Your task to perform on an android device: change your default location settings in chrome Image 0: 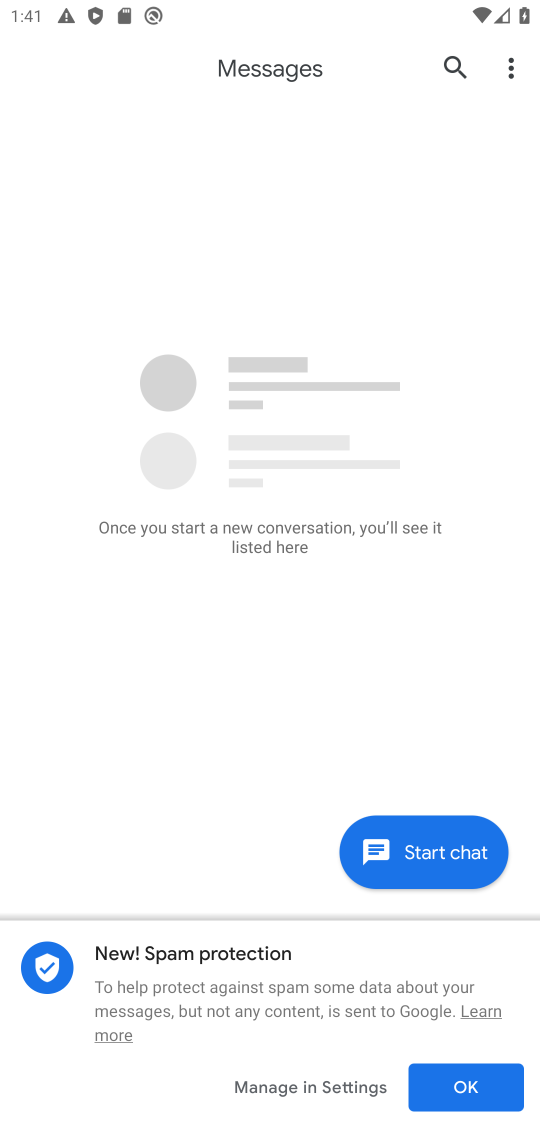
Step 0: press back button
Your task to perform on an android device: change your default location settings in chrome Image 1: 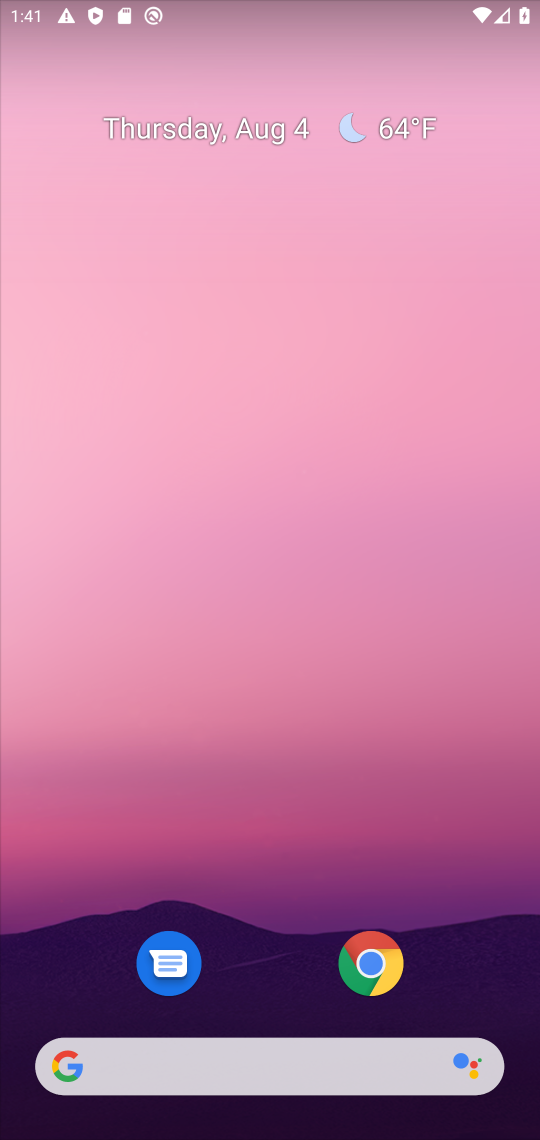
Step 1: click (349, 987)
Your task to perform on an android device: change your default location settings in chrome Image 2: 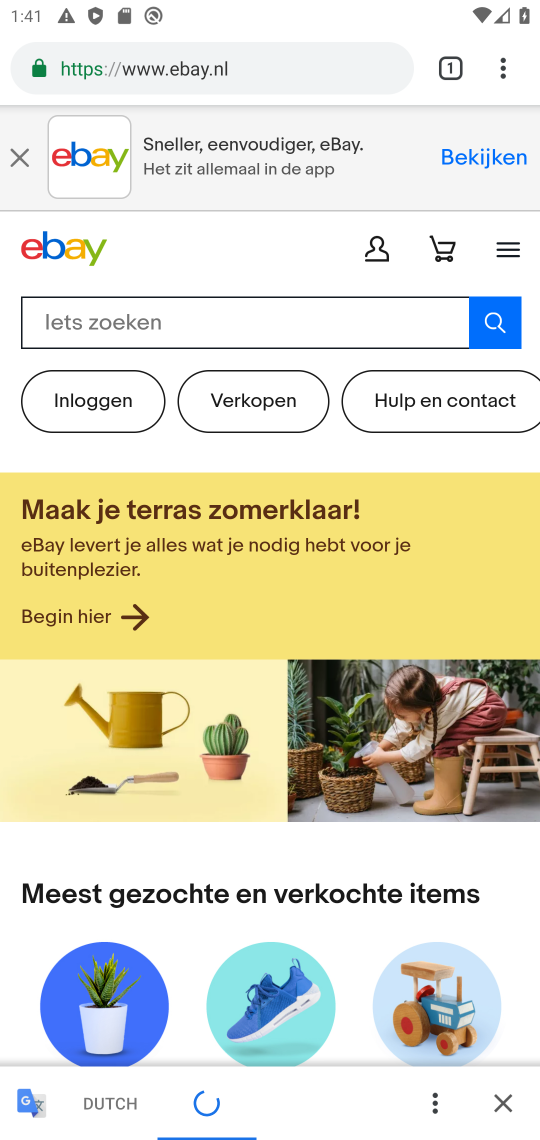
Step 2: drag from (504, 80) to (316, 887)
Your task to perform on an android device: change your default location settings in chrome Image 3: 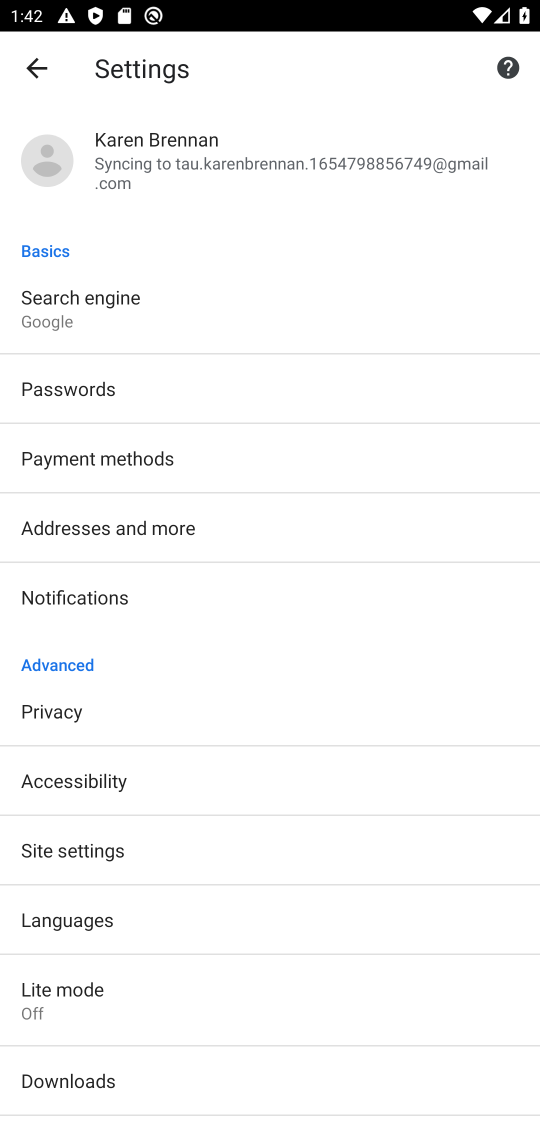
Step 3: click (122, 854)
Your task to perform on an android device: change your default location settings in chrome Image 4: 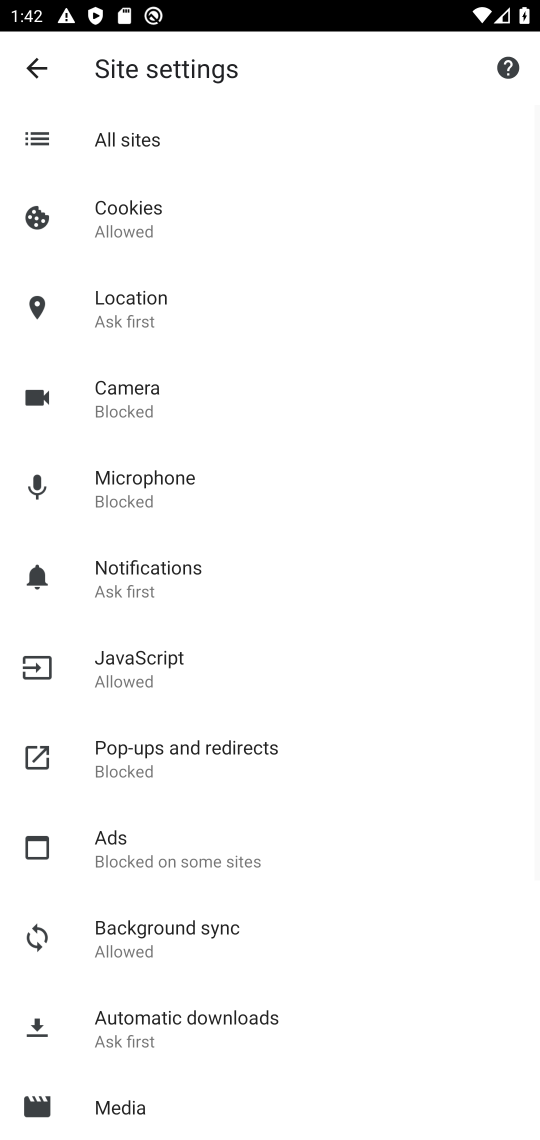
Step 4: click (131, 310)
Your task to perform on an android device: change your default location settings in chrome Image 5: 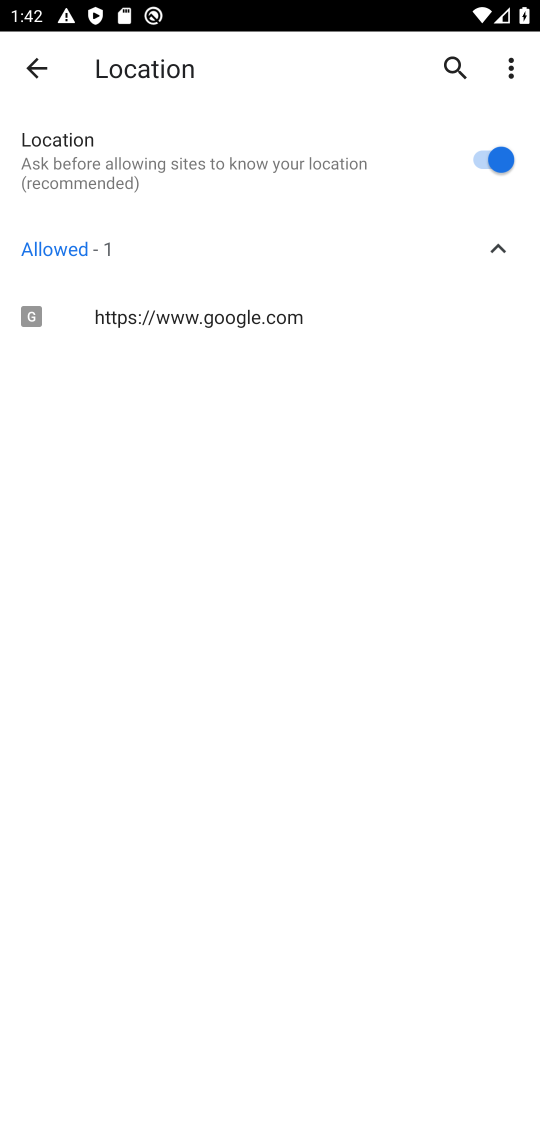
Step 5: click (486, 156)
Your task to perform on an android device: change your default location settings in chrome Image 6: 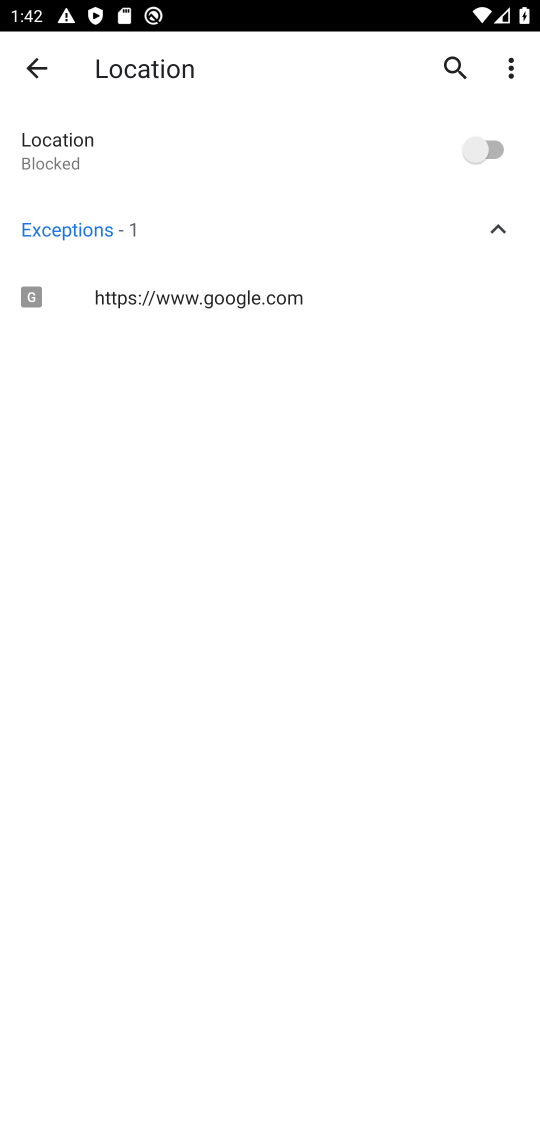
Step 6: task complete